Your task to perform on an android device: Open Google Maps Image 0: 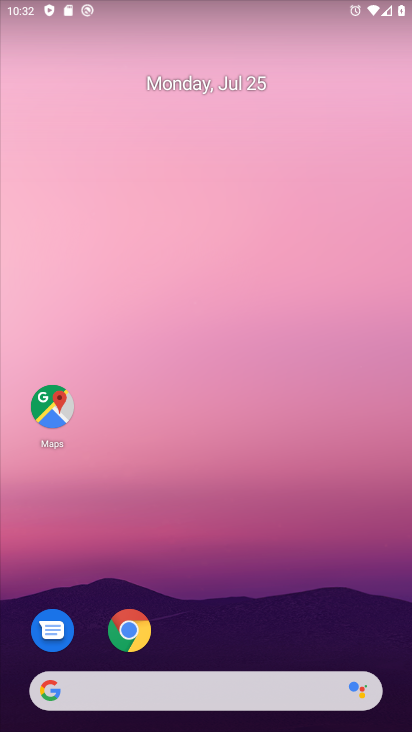
Step 0: click (47, 398)
Your task to perform on an android device: Open Google Maps Image 1: 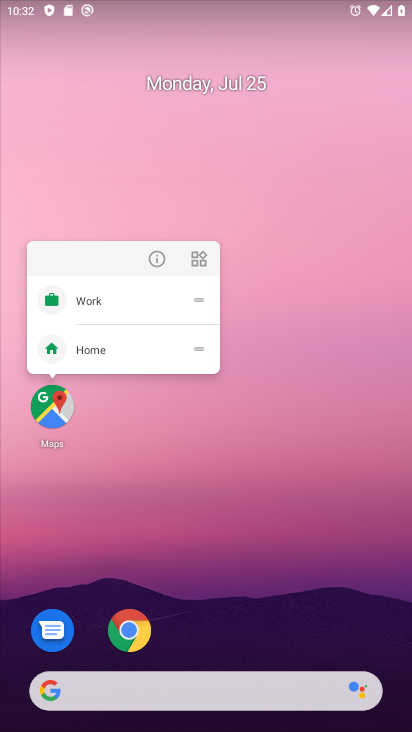
Step 1: click (45, 407)
Your task to perform on an android device: Open Google Maps Image 2: 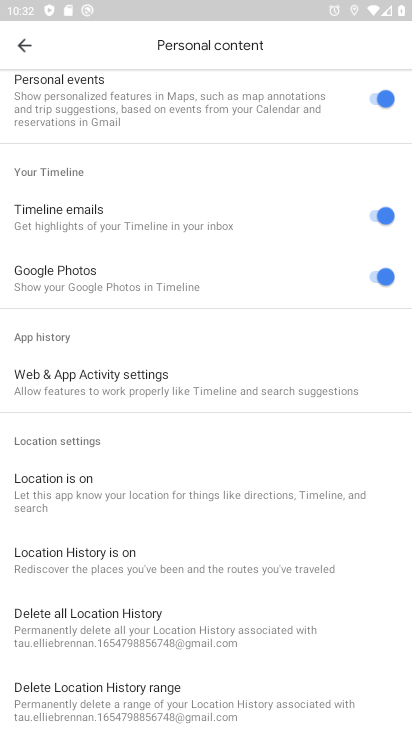
Step 2: task complete